Your task to perform on an android device: empty trash in the gmail app Image 0: 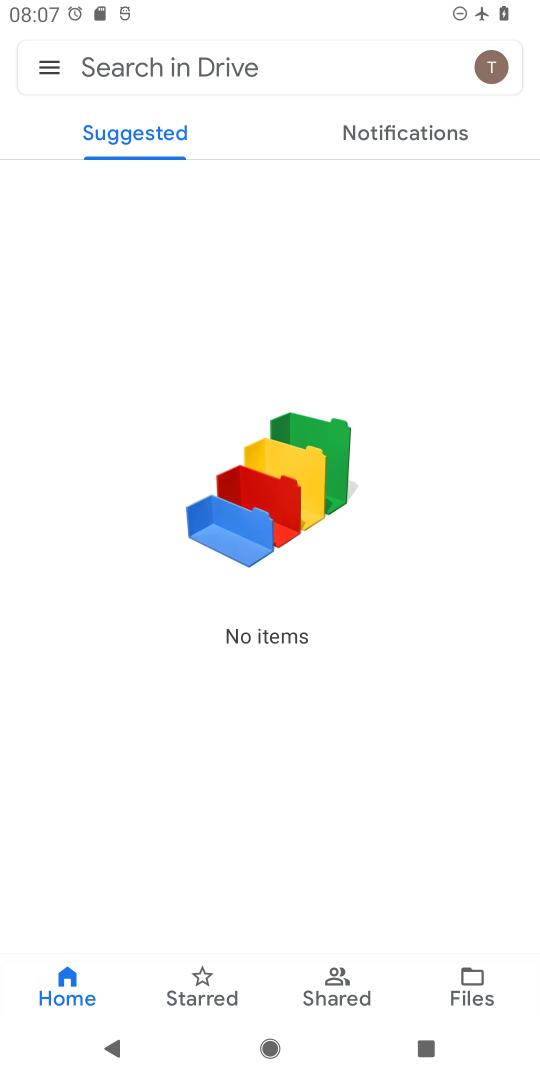
Step 0: press home button
Your task to perform on an android device: empty trash in the gmail app Image 1: 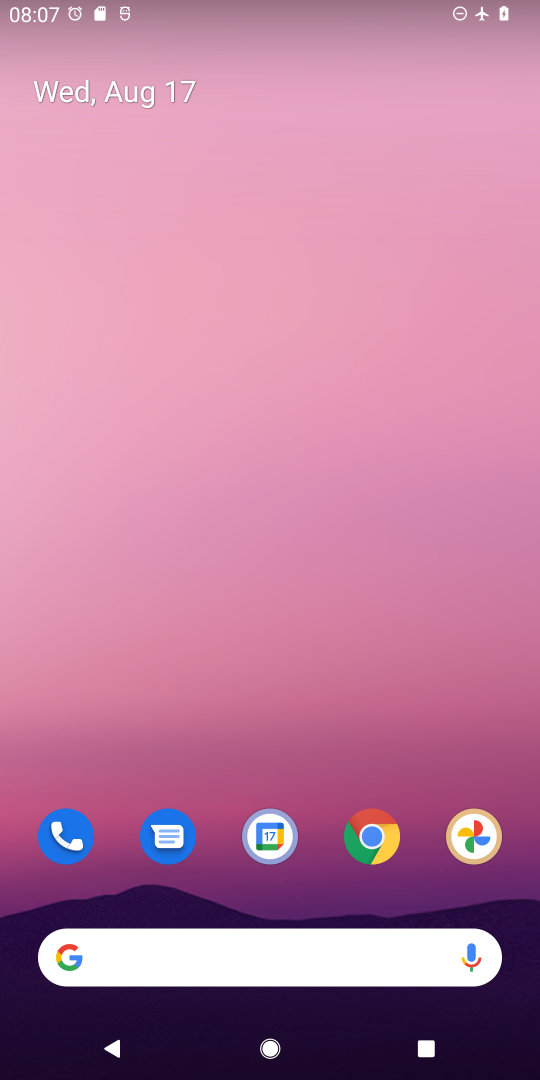
Step 1: drag from (226, 840) to (247, 235)
Your task to perform on an android device: empty trash in the gmail app Image 2: 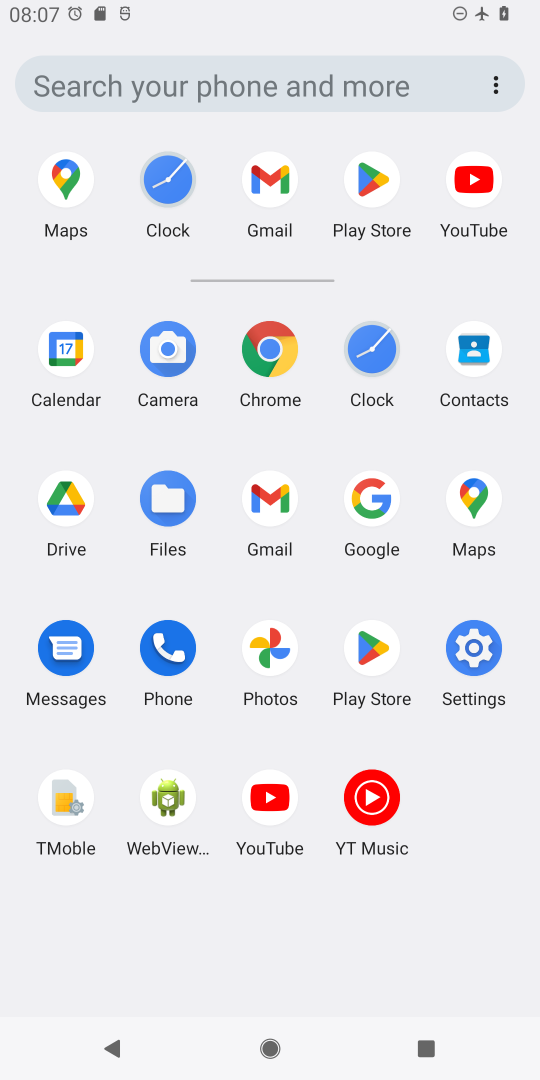
Step 2: click (256, 490)
Your task to perform on an android device: empty trash in the gmail app Image 3: 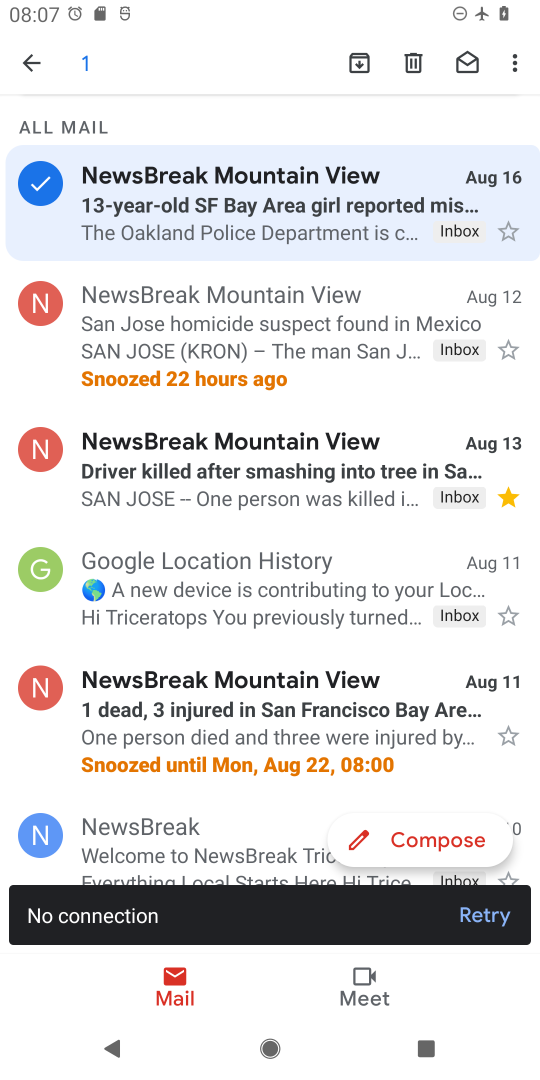
Step 3: click (19, 69)
Your task to perform on an android device: empty trash in the gmail app Image 4: 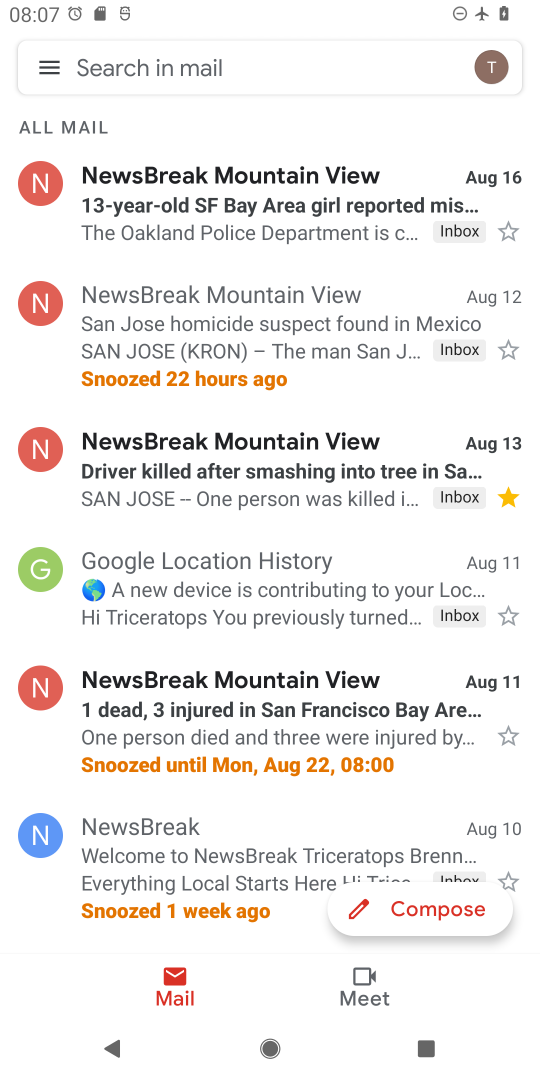
Step 4: click (34, 63)
Your task to perform on an android device: empty trash in the gmail app Image 5: 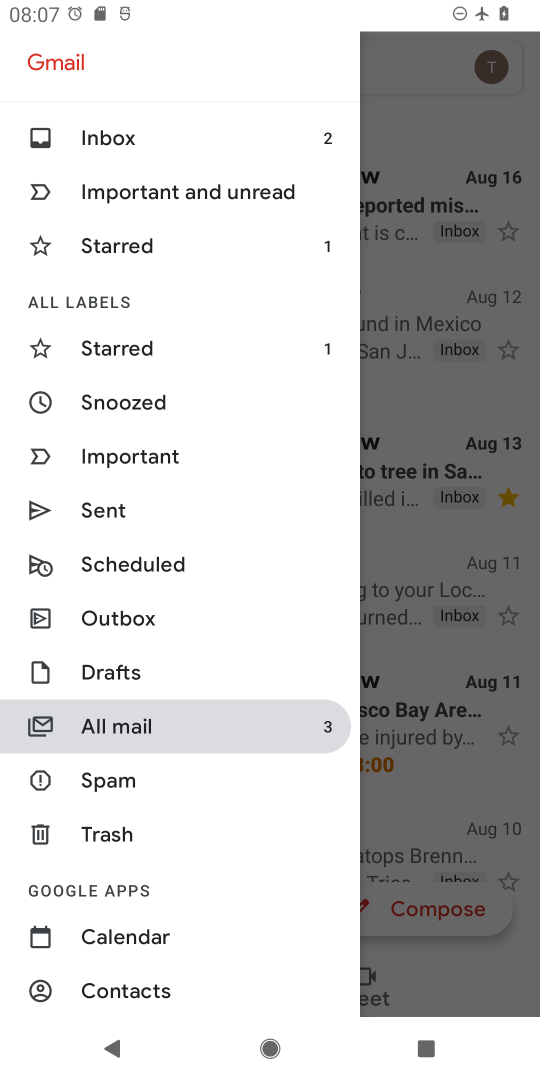
Step 5: click (118, 825)
Your task to perform on an android device: empty trash in the gmail app Image 6: 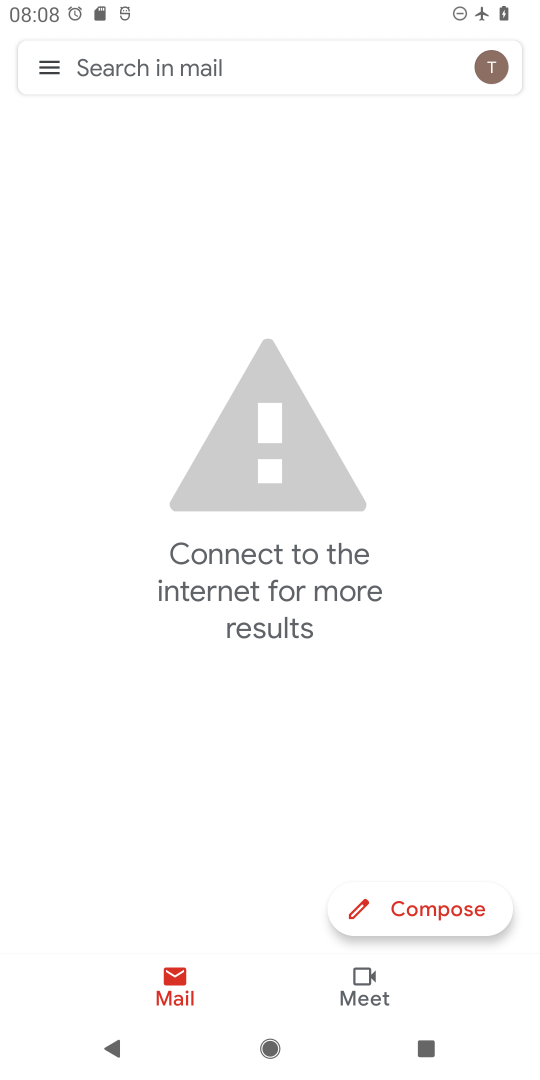
Step 6: click (36, 62)
Your task to perform on an android device: empty trash in the gmail app Image 7: 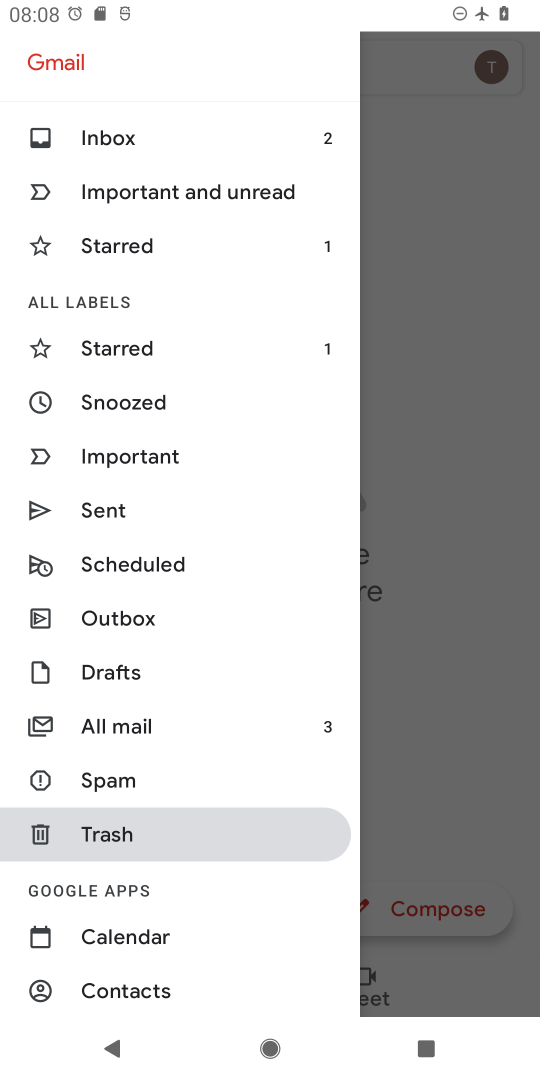
Step 7: click (196, 833)
Your task to perform on an android device: empty trash in the gmail app Image 8: 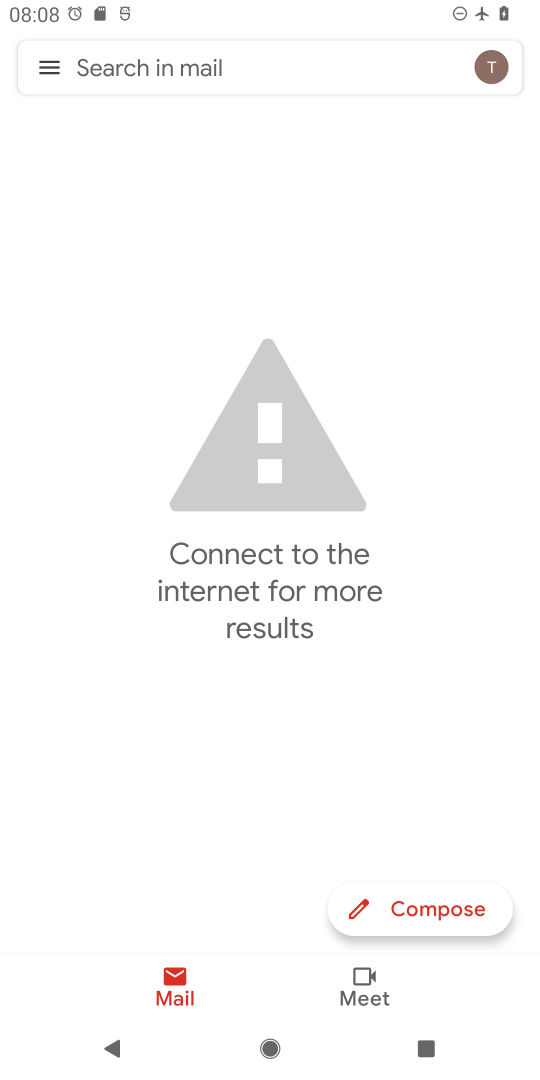
Step 8: task complete